Your task to perform on an android device: Show me recent news Image 0: 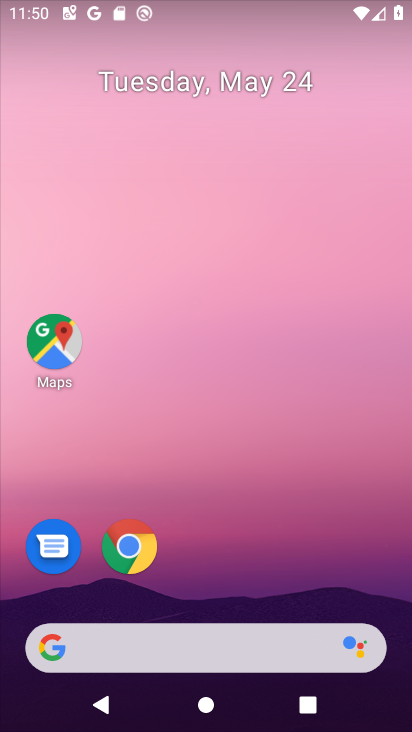
Step 0: drag from (232, 575) to (265, 72)
Your task to perform on an android device: Show me recent news Image 1: 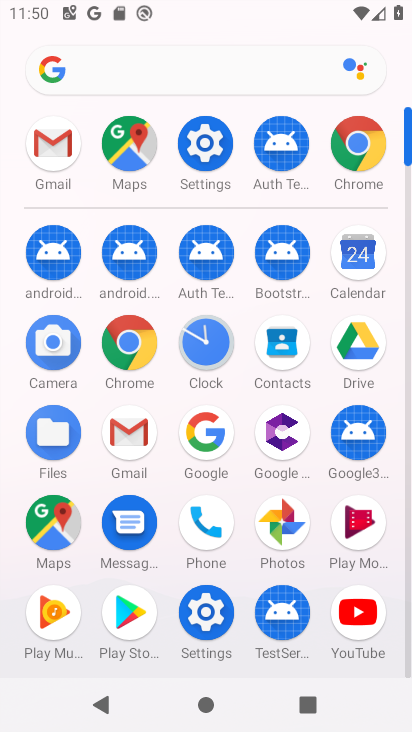
Step 1: click (169, 66)
Your task to perform on an android device: Show me recent news Image 2: 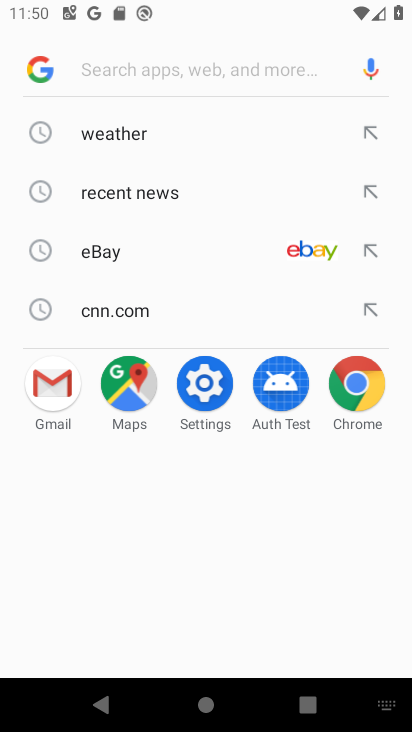
Step 2: type "recent news"
Your task to perform on an android device: Show me recent news Image 3: 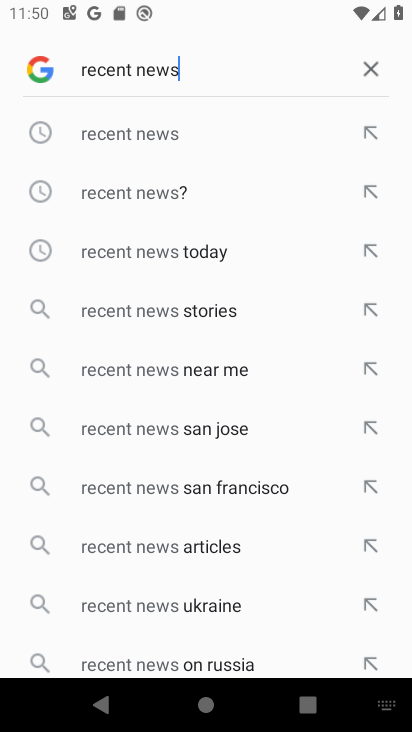
Step 3: click (182, 142)
Your task to perform on an android device: Show me recent news Image 4: 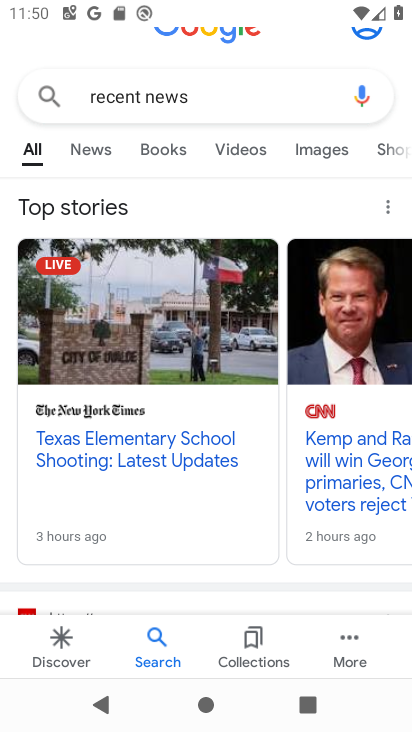
Step 4: task complete